Your task to perform on an android device: turn off sleep mode Image 0: 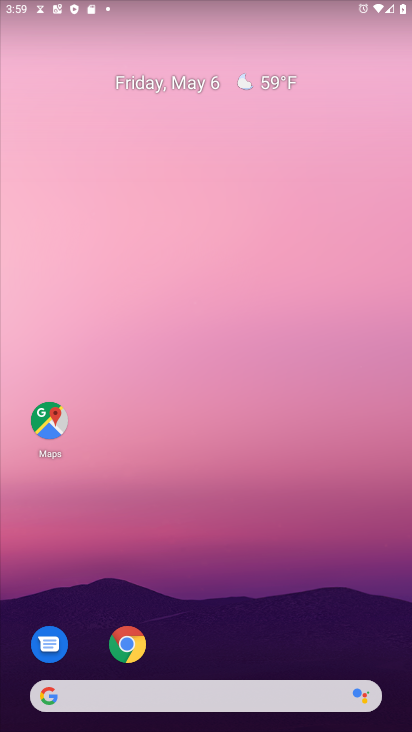
Step 0: drag from (214, 601) to (161, 34)
Your task to perform on an android device: turn off sleep mode Image 1: 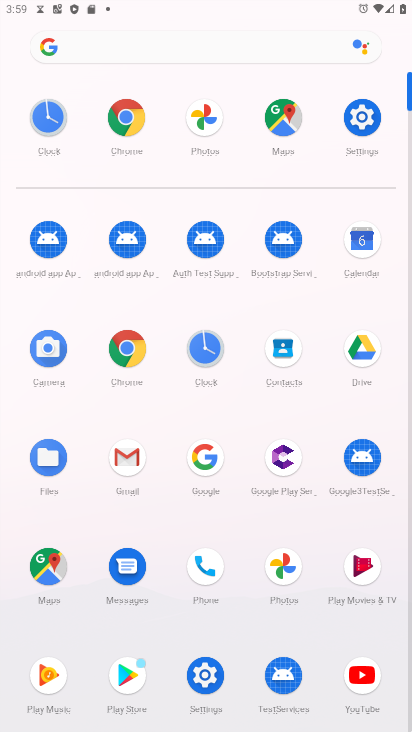
Step 1: click (357, 118)
Your task to perform on an android device: turn off sleep mode Image 2: 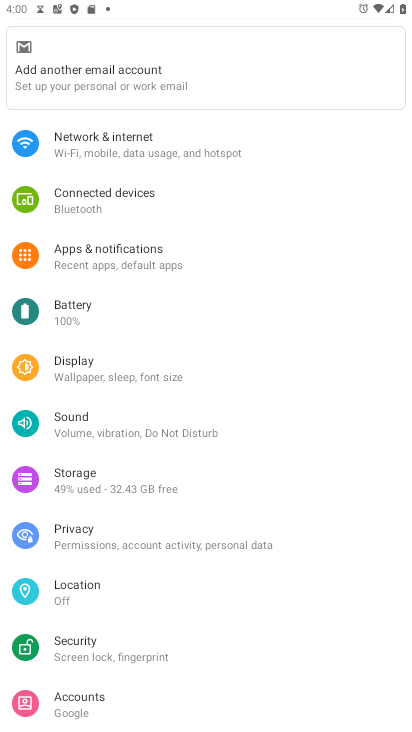
Step 2: click (128, 373)
Your task to perform on an android device: turn off sleep mode Image 3: 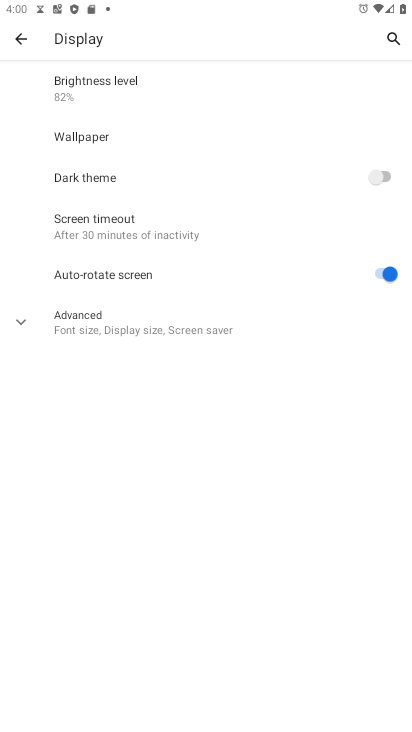
Step 3: click (162, 326)
Your task to perform on an android device: turn off sleep mode Image 4: 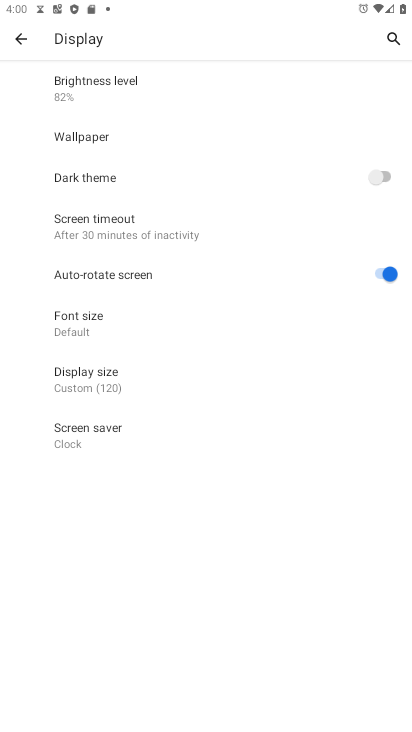
Step 4: press back button
Your task to perform on an android device: turn off sleep mode Image 5: 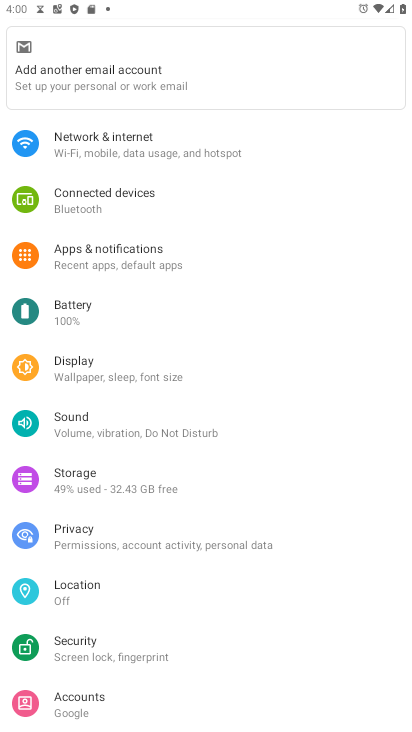
Step 5: drag from (96, 486) to (123, 392)
Your task to perform on an android device: turn off sleep mode Image 6: 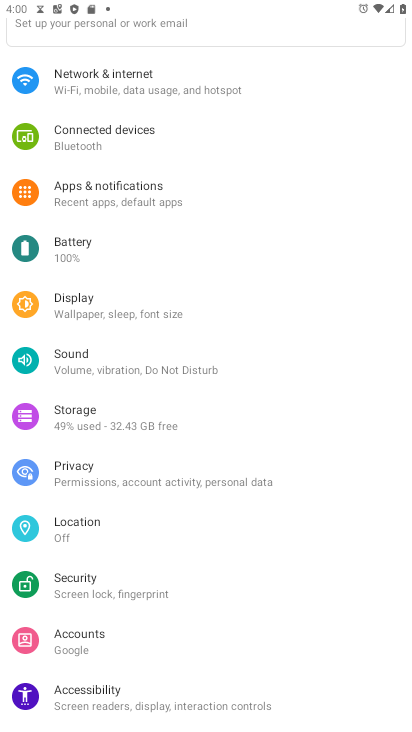
Step 6: drag from (106, 462) to (165, 375)
Your task to perform on an android device: turn off sleep mode Image 7: 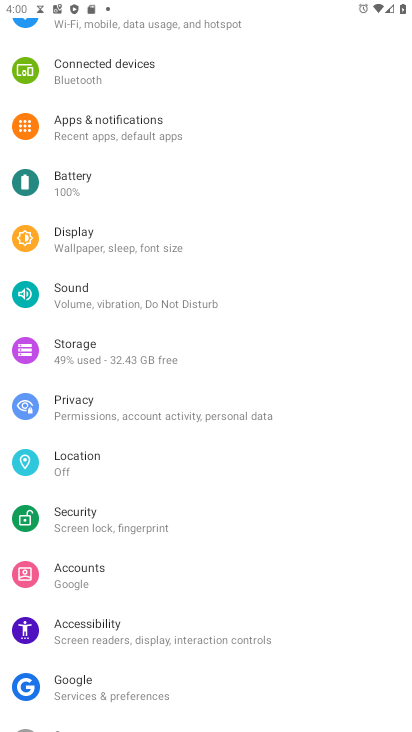
Step 7: drag from (152, 228) to (158, 328)
Your task to perform on an android device: turn off sleep mode Image 8: 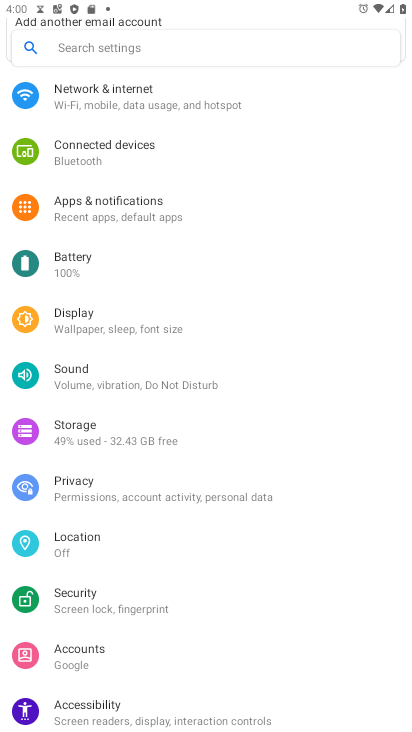
Step 8: drag from (93, 455) to (146, 365)
Your task to perform on an android device: turn off sleep mode Image 9: 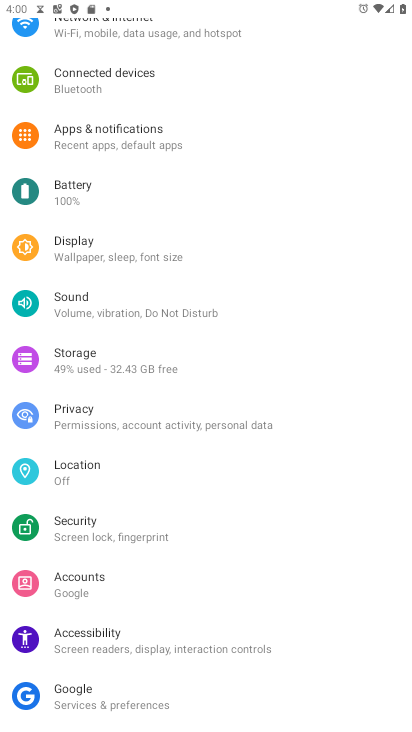
Step 9: drag from (101, 497) to (151, 382)
Your task to perform on an android device: turn off sleep mode Image 10: 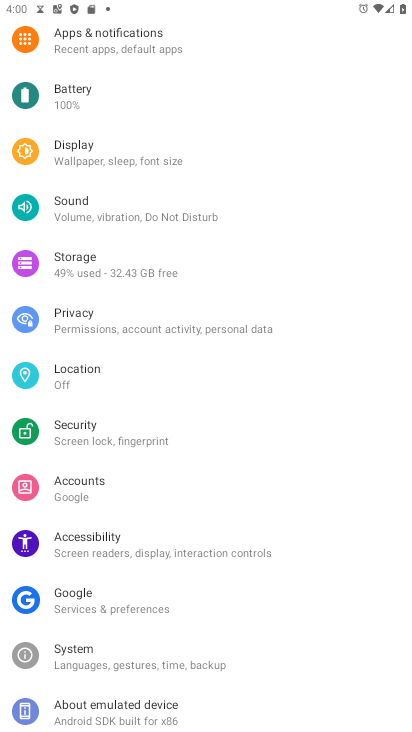
Step 10: drag from (73, 511) to (145, 388)
Your task to perform on an android device: turn off sleep mode Image 11: 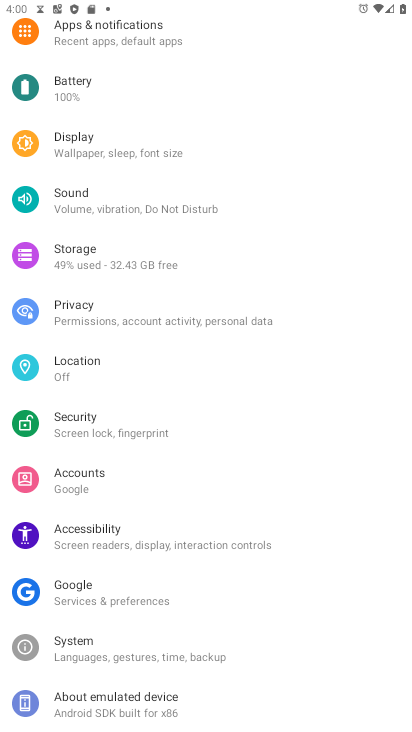
Step 11: drag from (172, 331) to (192, 451)
Your task to perform on an android device: turn off sleep mode Image 12: 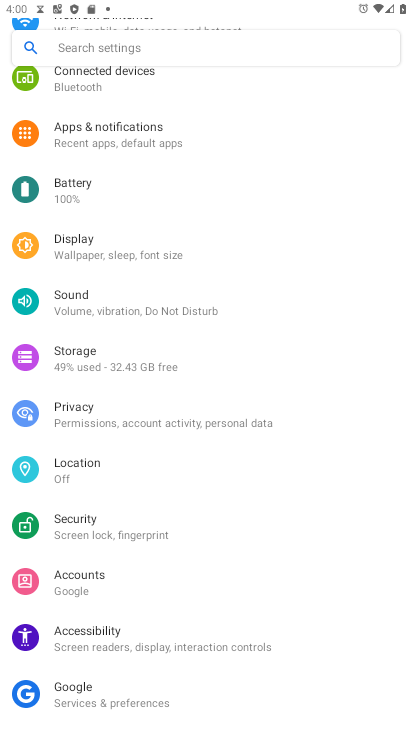
Step 12: drag from (147, 248) to (150, 369)
Your task to perform on an android device: turn off sleep mode Image 13: 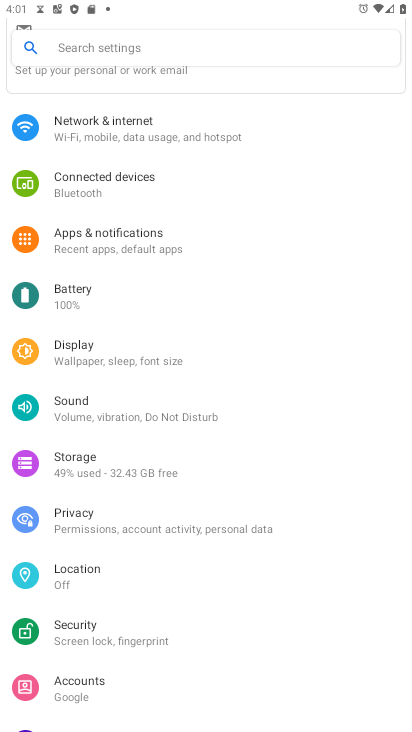
Step 13: click (150, 369)
Your task to perform on an android device: turn off sleep mode Image 14: 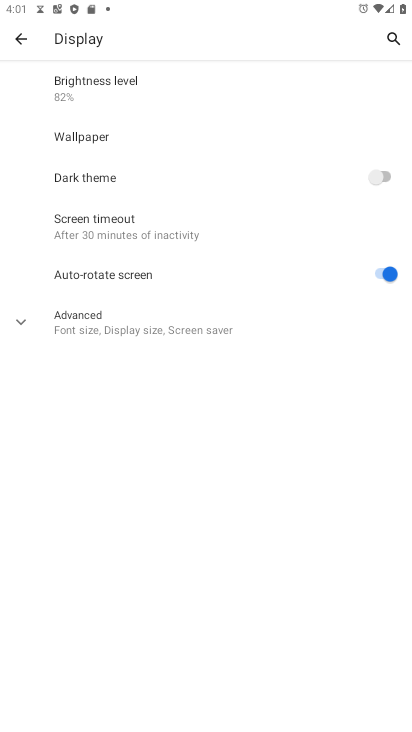
Step 14: click (123, 239)
Your task to perform on an android device: turn off sleep mode Image 15: 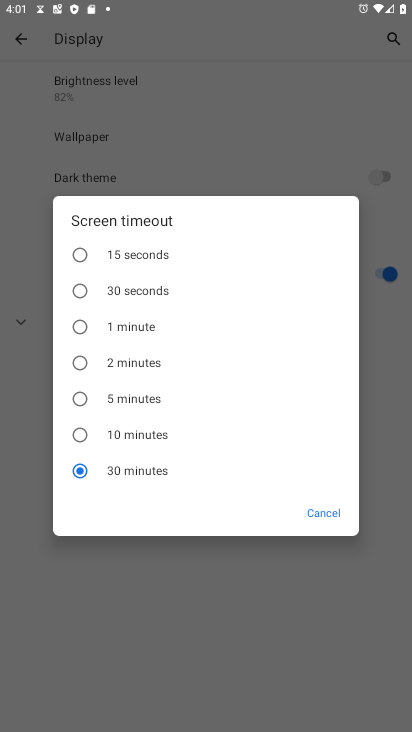
Step 15: click (328, 514)
Your task to perform on an android device: turn off sleep mode Image 16: 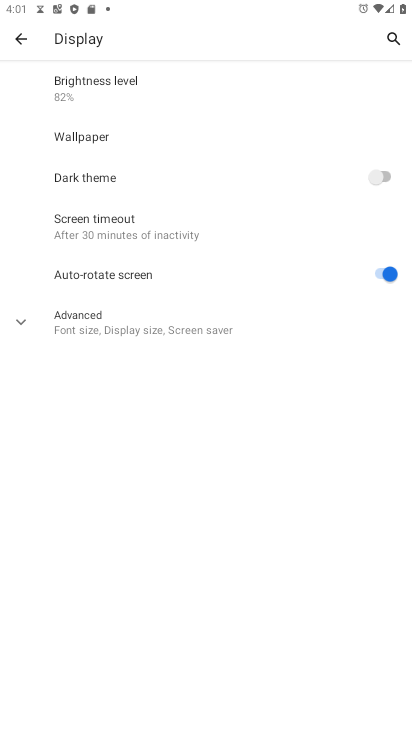
Step 16: task complete